Your task to perform on an android device: change notifications settings Image 0: 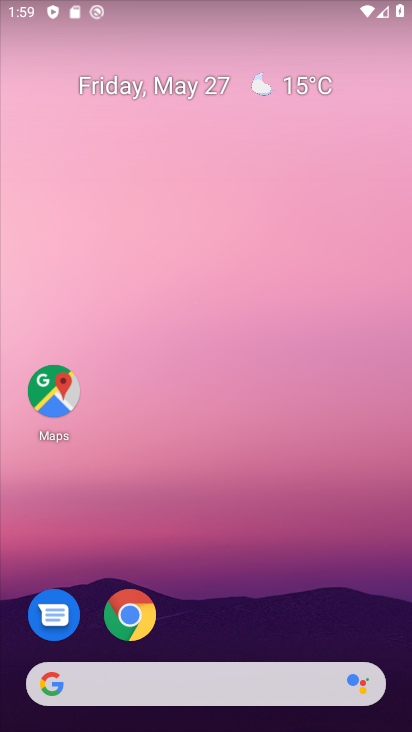
Step 0: drag from (259, 496) to (176, 116)
Your task to perform on an android device: change notifications settings Image 1: 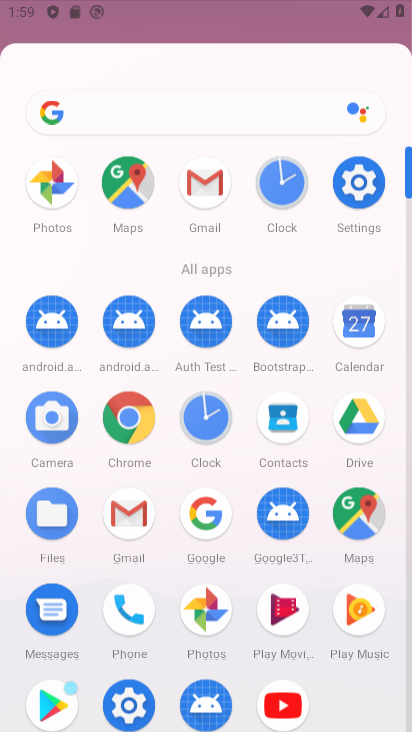
Step 1: drag from (230, 628) to (237, 178)
Your task to perform on an android device: change notifications settings Image 2: 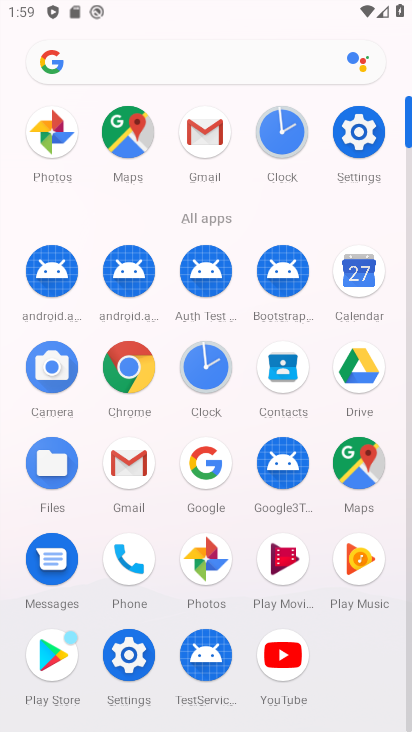
Step 2: click (364, 120)
Your task to perform on an android device: change notifications settings Image 3: 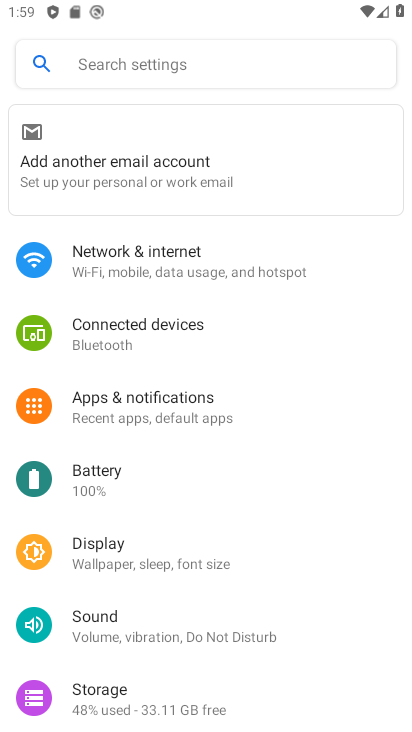
Step 3: click (204, 418)
Your task to perform on an android device: change notifications settings Image 4: 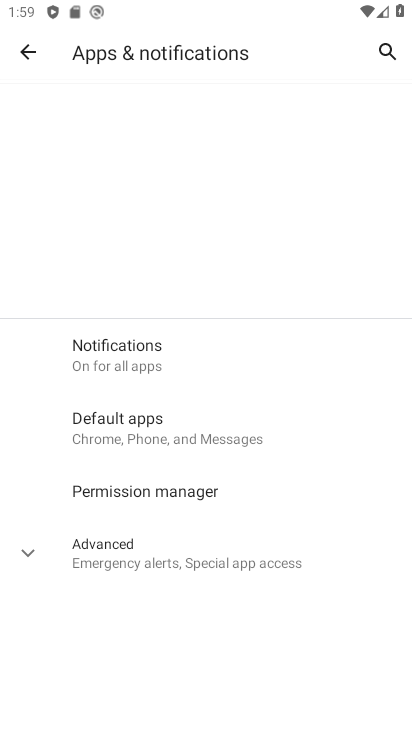
Step 4: click (210, 386)
Your task to perform on an android device: change notifications settings Image 5: 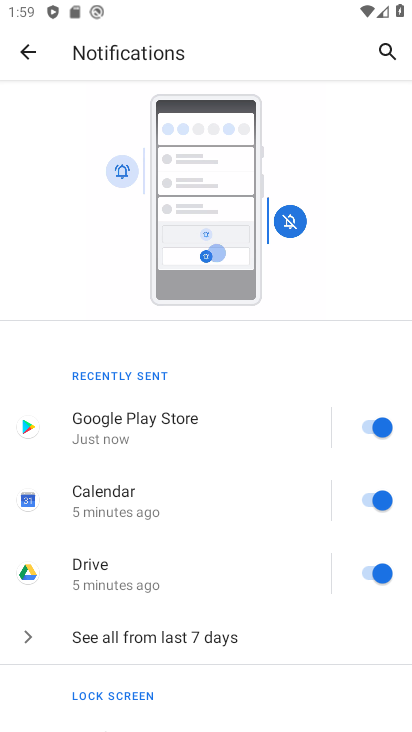
Step 5: click (374, 429)
Your task to perform on an android device: change notifications settings Image 6: 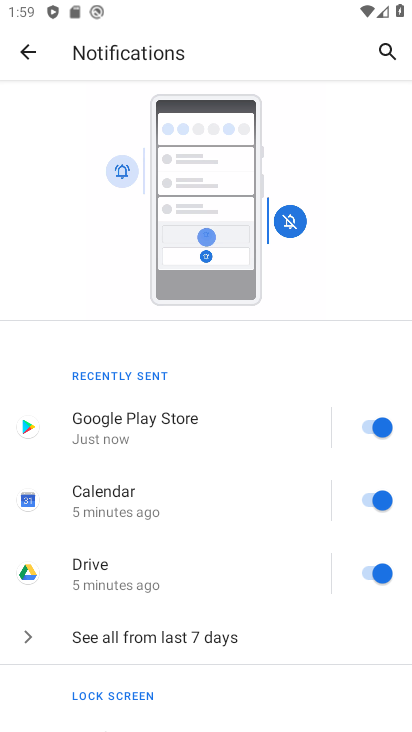
Step 6: click (381, 503)
Your task to perform on an android device: change notifications settings Image 7: 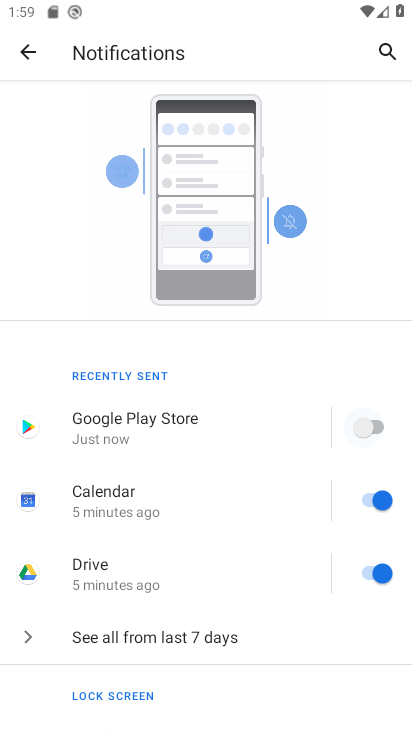
Step 7: click (376, 572)
Your task to perform on an android device: change notifications settings Image 8: 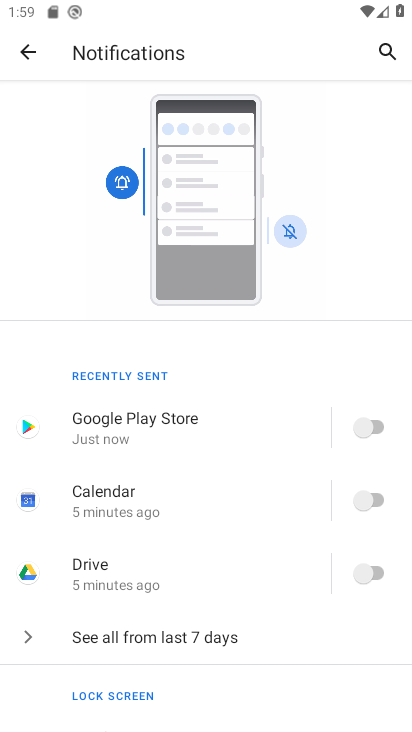
Step 8: task complete